Your task to perform on an android device: check storage Image 0: 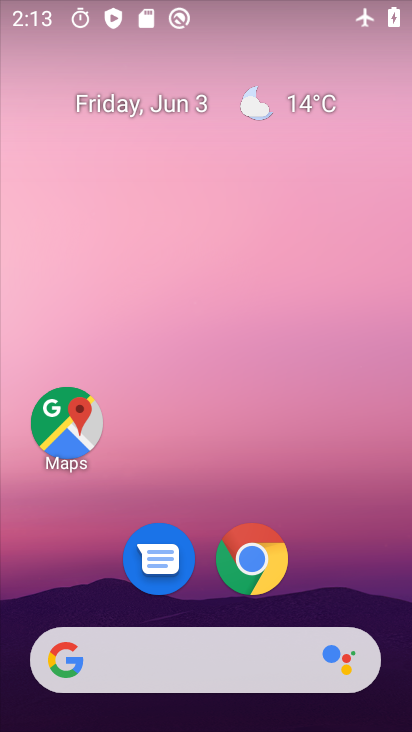
Step 0: drag from (229, 604) to (196, 10)
Your task to perform on an android device: check storage Image 1: 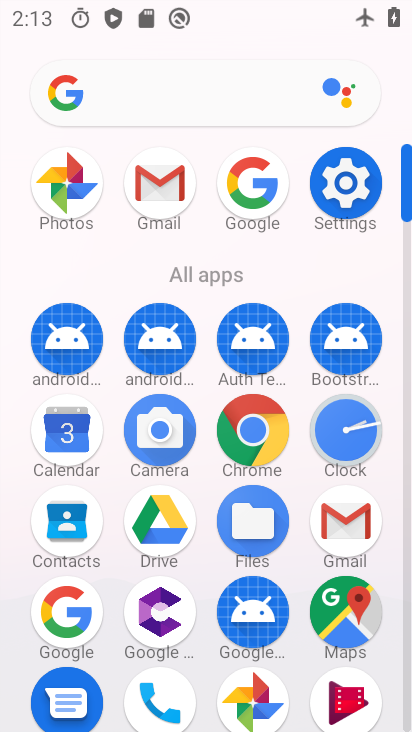
Step 1: click (358, 189)
Your task to perform on an android device: check storage Image 2: 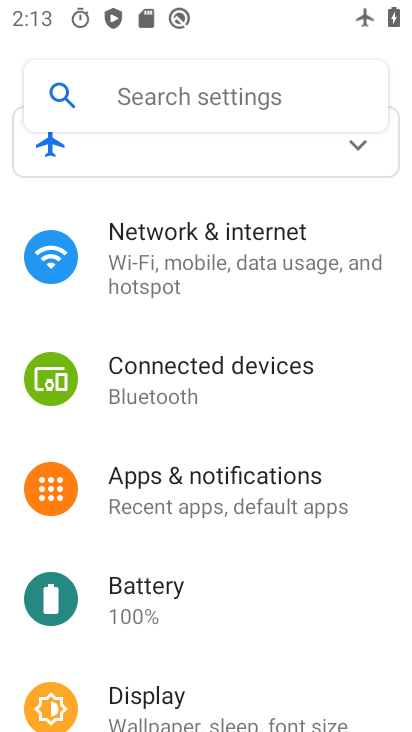
Step 2: drag from (218, 580) to (163, 96)
Your task to perform on an android device: check storage Image 3: 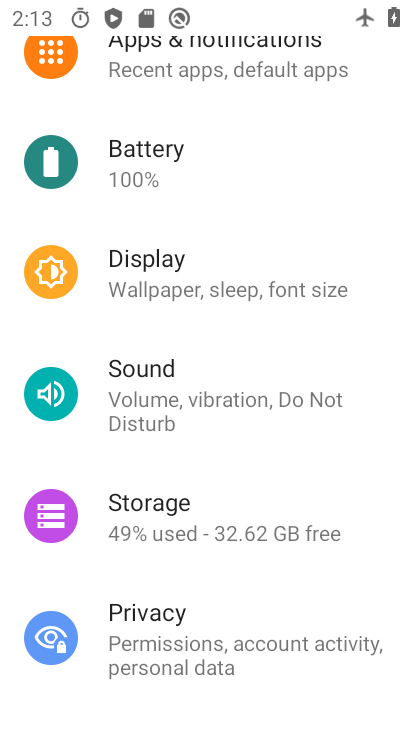
Step 3: click (143, 509)
Your task to perform on an android device: check storage Image 4: 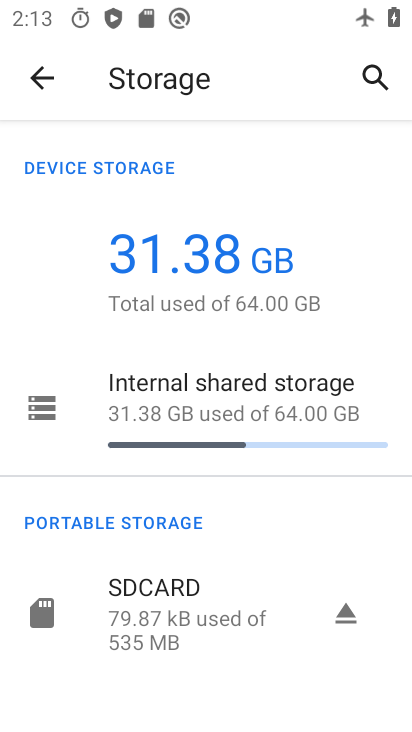
Step 4: task complete